Your task to perform on an android device: turn off wifi Image 0: 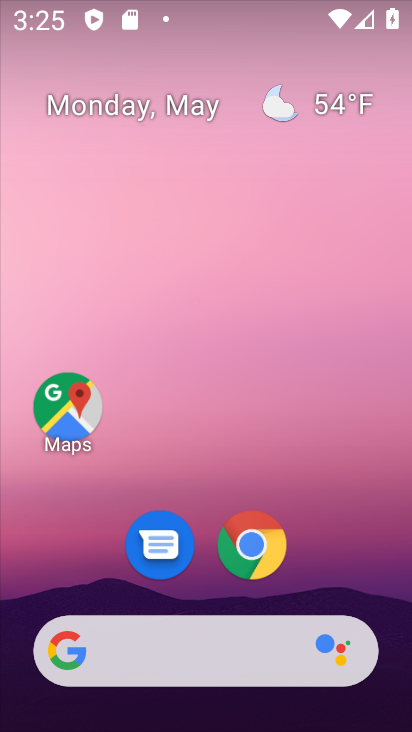
Step 0: drag from (390, 649) to (193, 94)
Your task to perform on an android device: turn off wifi Image 1: 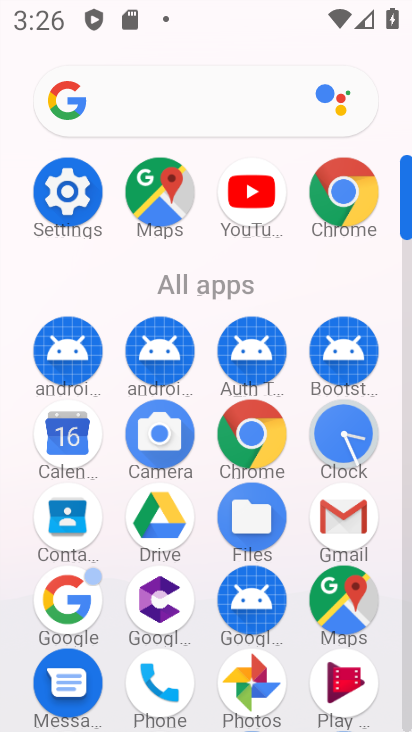
Step 1: click (408, 677)
Your task to perform on an android device: turn off wifi Image 2: 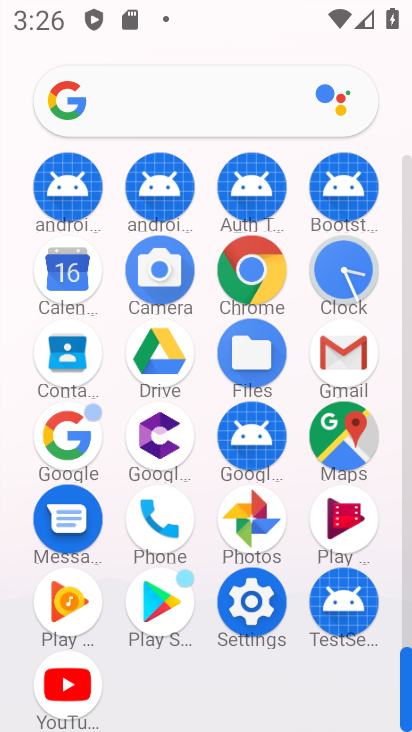
Step 2: click (249, 604)
Your task to perform on an android device: turn off wifi Image 3: 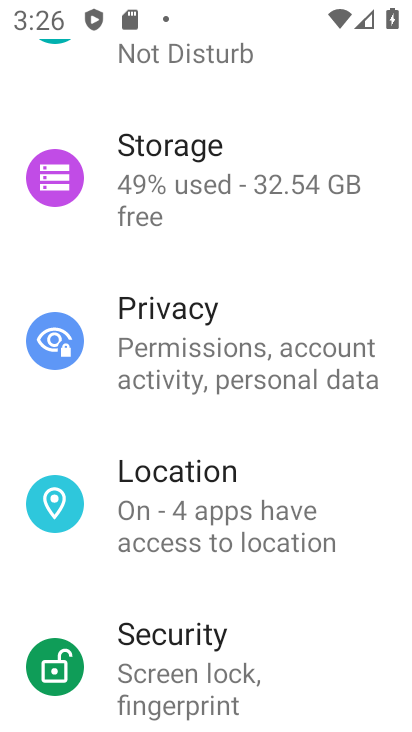
Step 3: drag from (339, 227) to (339, 596)
Your task to perform on an android device: turn off wifi Image 4: 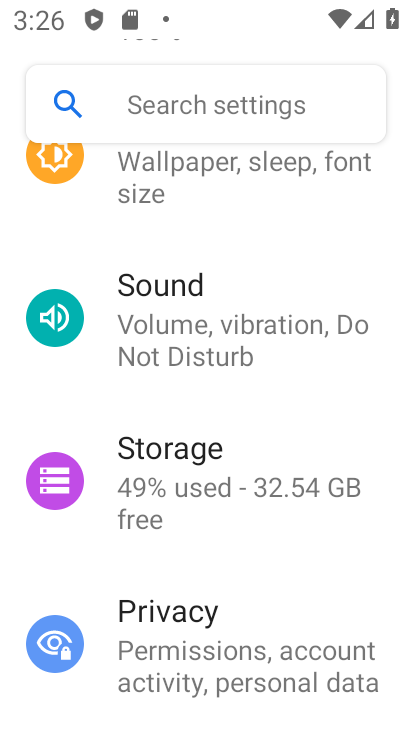
Step 4: drag from (322, 297) to (348, 604)
Your task to perform on an android device: turn off wifi Image 5: 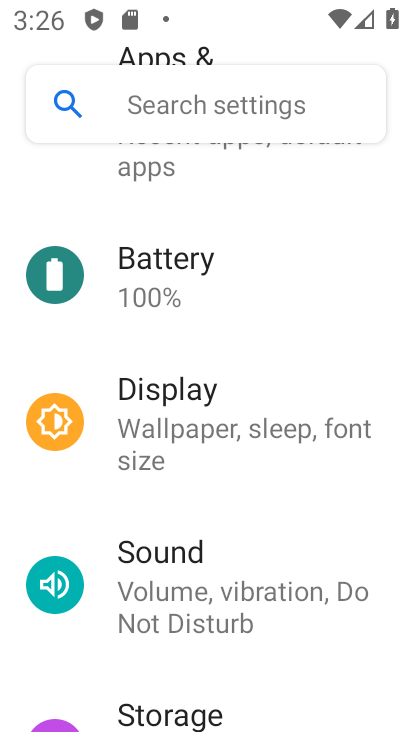
Step 5: drag from (339, 276) to (359, 610)
Your task to perform on an android device: turn off wifi Image 6: 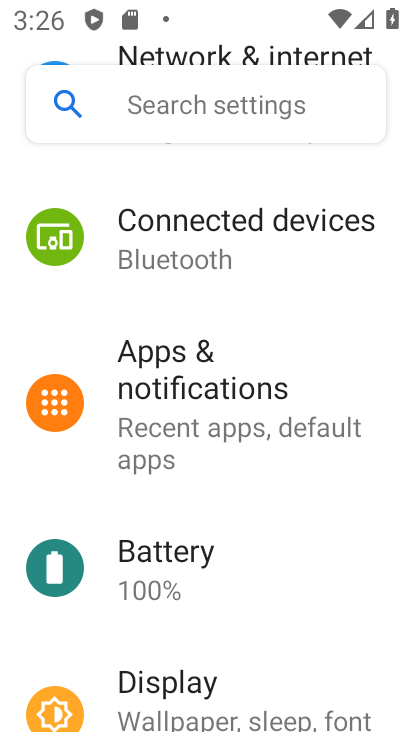
Step 6: drag from (392, 318) to (398, 609)
Your task to perform on an android device: turn off wifi Image 7: 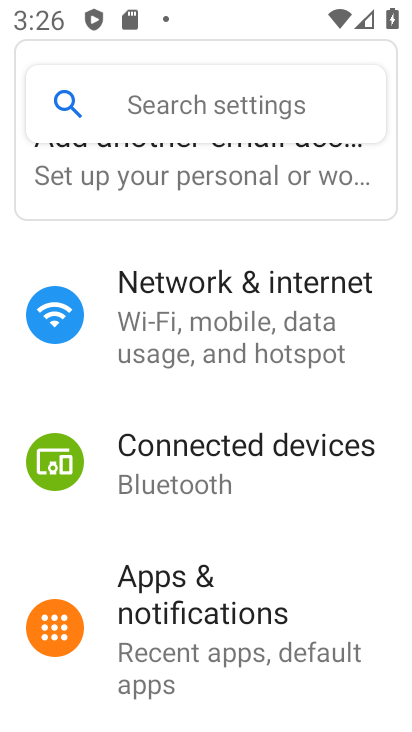
Step 7: click (190, 306)
Your task to perform on an android device: turn off wifi Image 8: 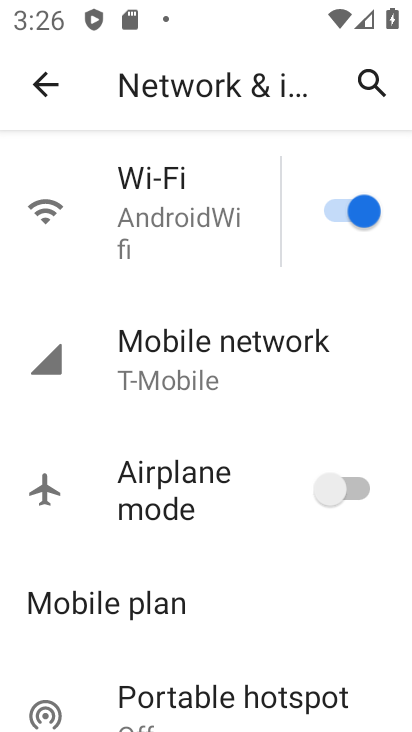
Step 8: click (320, 207)
Your task to perform on an android device: turn off wifi Image 9: 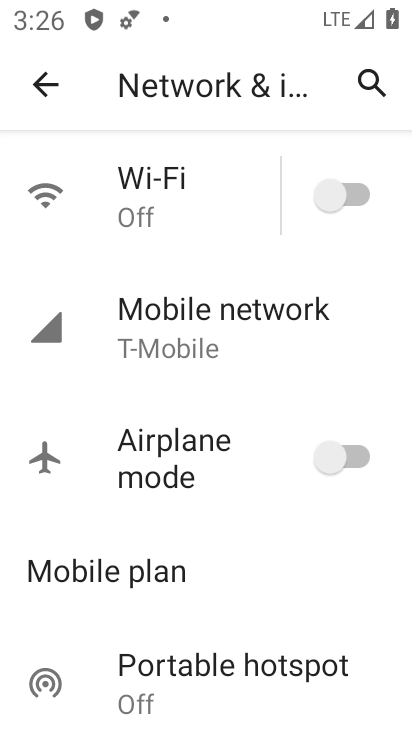
Step 9: task complete